Your task to perform on an android device: delete location history Image 0: 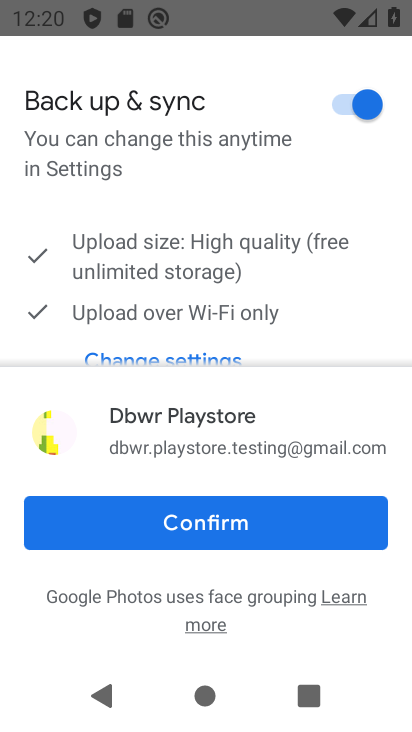
Step 0: press home button
Your task to perform on an android device: delete location history Image 1: 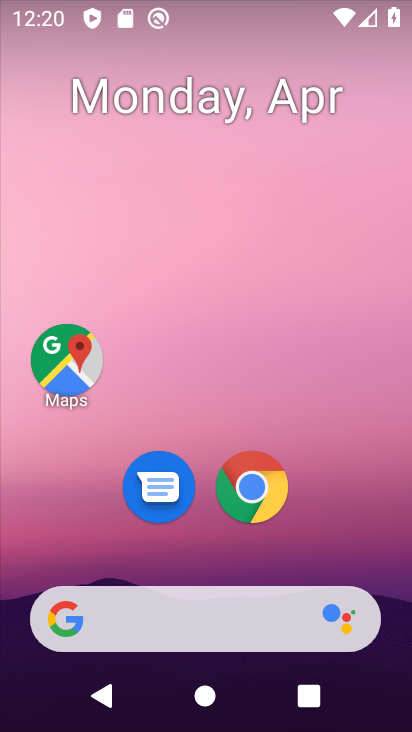
Step 1: drag from (395, 625) to (211, 27)
Your task to perform on an android device: delete location history Image 2: 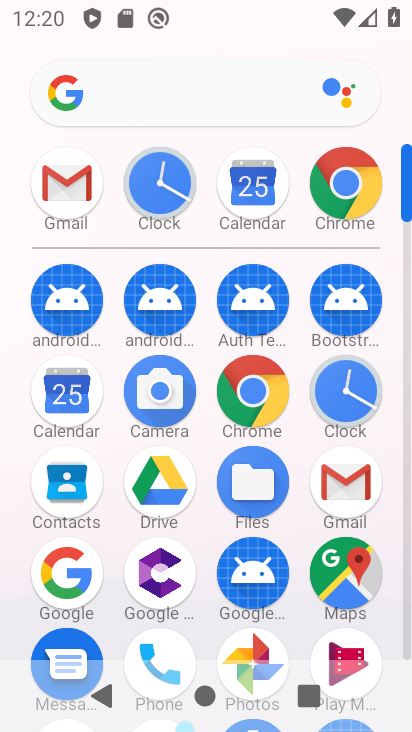
Step 2: click (405, 659)
Your task to perform on an android device: delete location history Image 3: 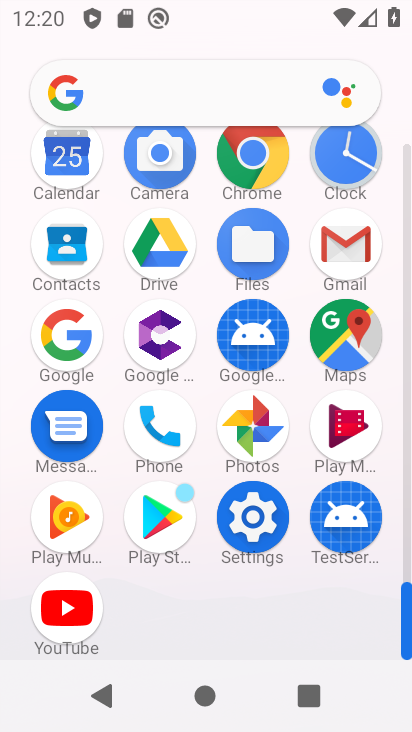
Step 3: click (269, 521)
Your task to perform on an android device: delete location history Image 4: 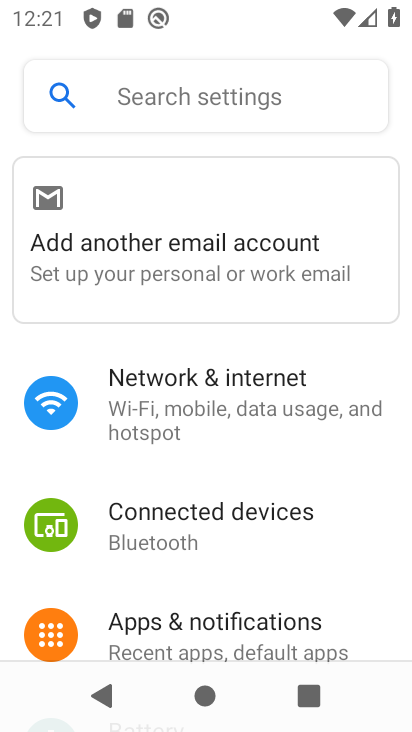
Step 4: drag from (164, 561) to (209, 145)
Your task to perform on an android device: delete location history Image 5: 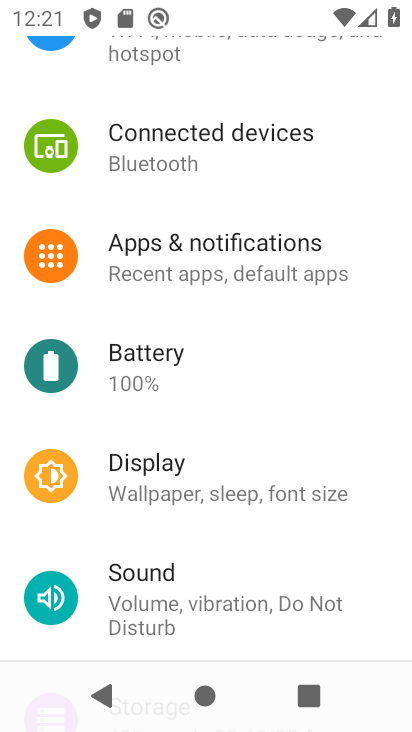
Step 5: drag from (173, 587) to (236, 208)
Your task to perform on an android device: delete location history Image 6: 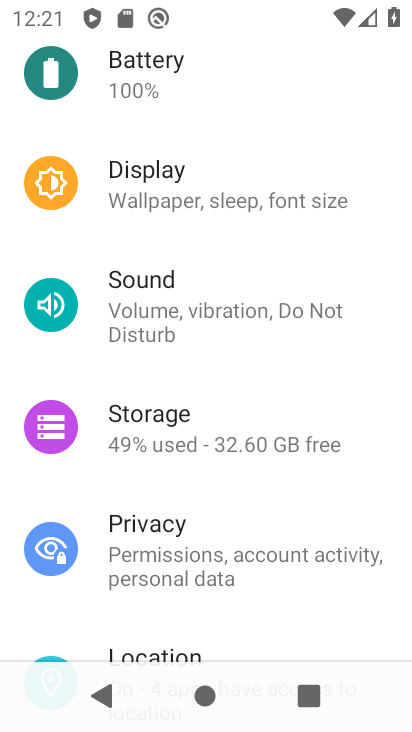
Step 6: drag from (167, 557) to (196, 148)
Your task to perform on an android device: delete location history Image 7: 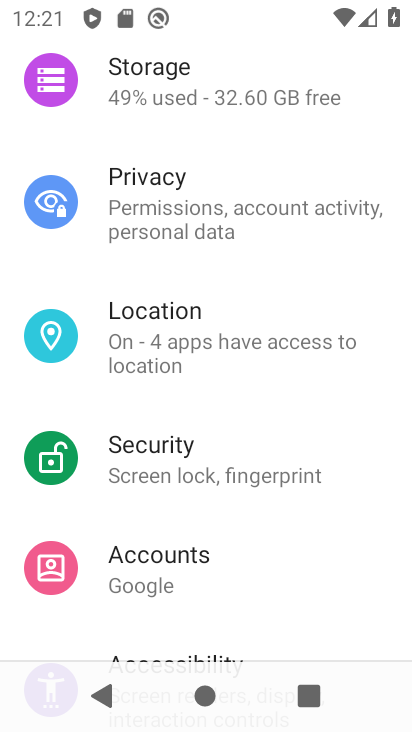
Step 7: click (141, 319)
Your task to perform on an android device: delete location history Image 8: 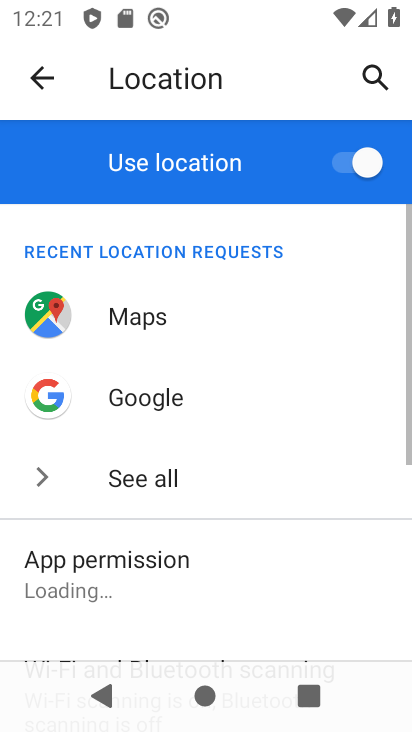
Step 8: drag from (66, 605) to (186, 152)
Your task to perform on an android device: delete location history Image 9: 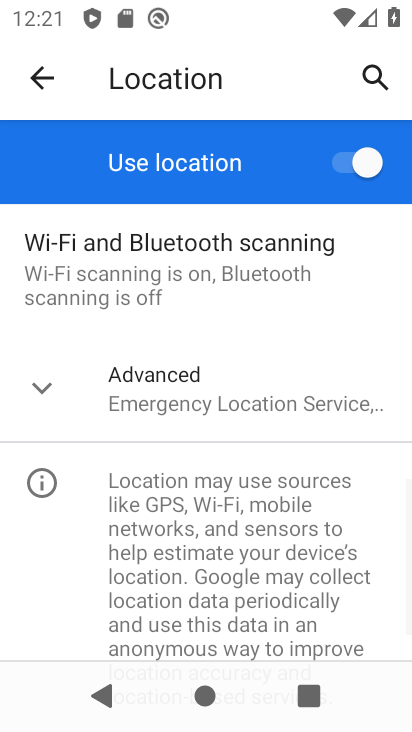
Step 9: click (11, 402)
Your task to perform on an android device: delete location history Image 10: 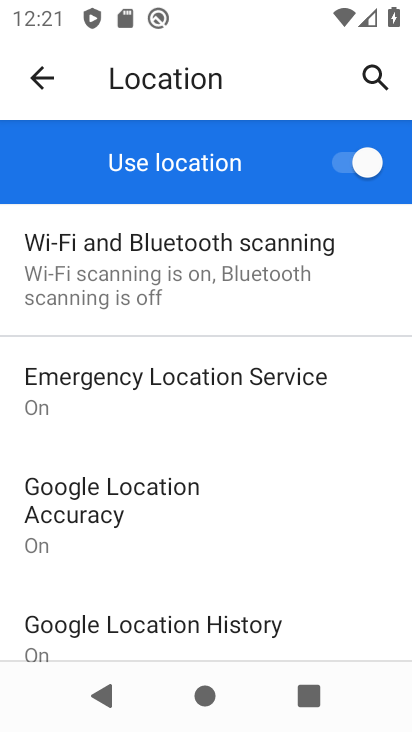
Step 10: click (251, 623)
Your task to perform on an android device: delete location history Image 11: 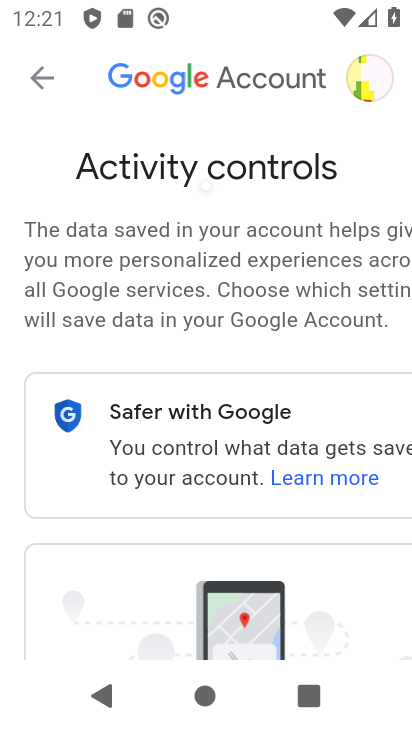
Step 11: drag from (341, 597) to (200, 75)
Your task to perform on an android device: delete location history Image 12: 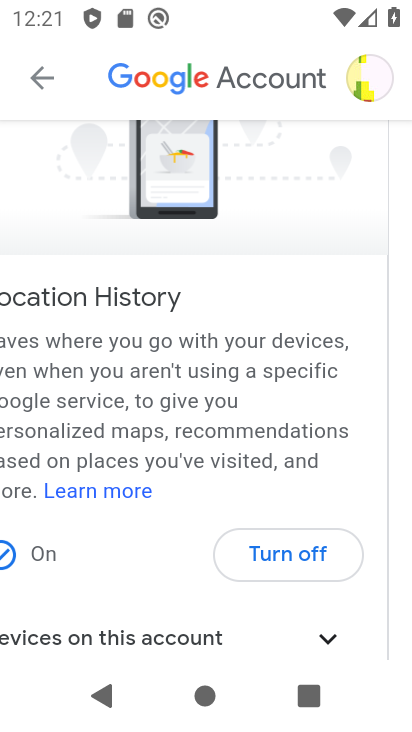
Step 12: drag from (260, 558) to (252, 240)
Your task to perform on an android device: delete location history Image 13: 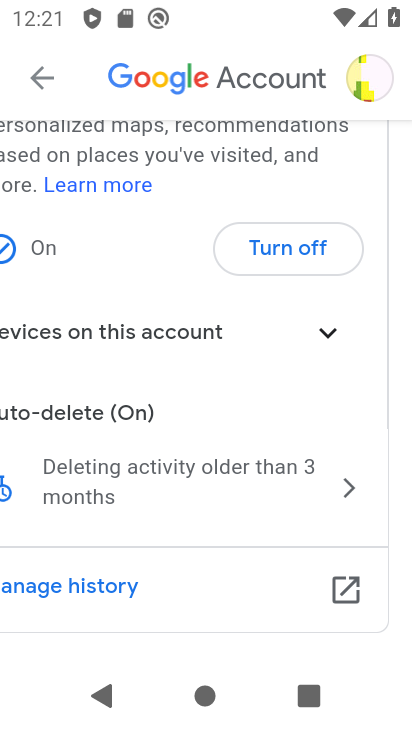
Step 13: click (160, 485)
Your task to perform on an android device: delete location history Image 14: 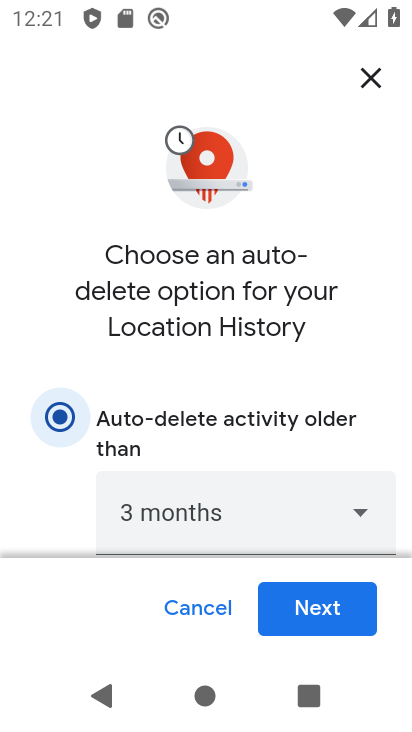
Step 14: click (315, 603)
Your task to perform on an android device: delete location history Image 15: 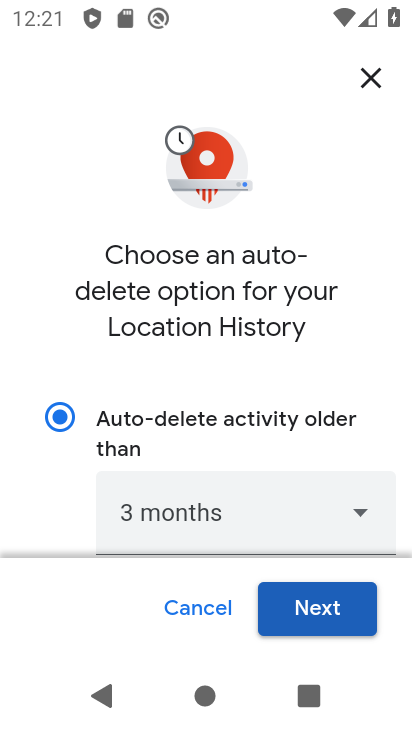
Step 15: click (299, 596)
Your task to perform on an android device: delete location history Image 16: 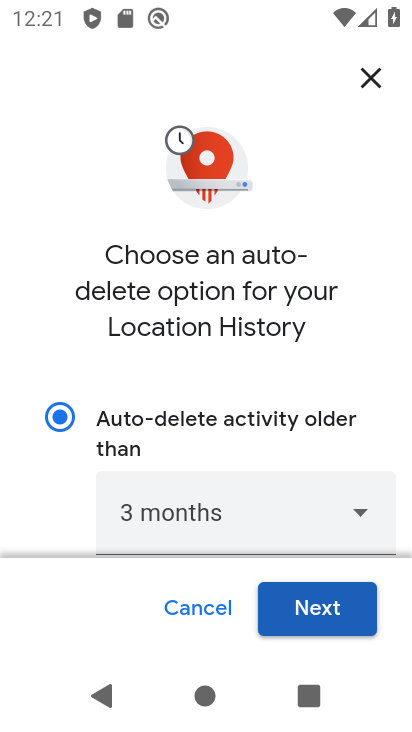
Step 16: click (309, 608)
Your task to perform on an android device: delete location history Image 17: 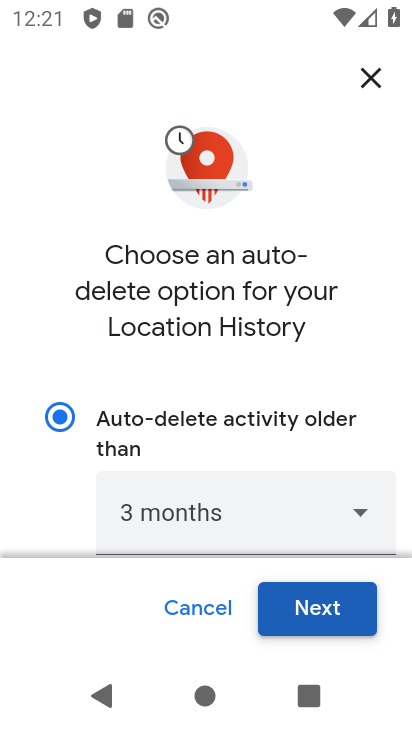
Step 17: click (310, 609)
Your task to perform on an android device: delete location history Image 18: 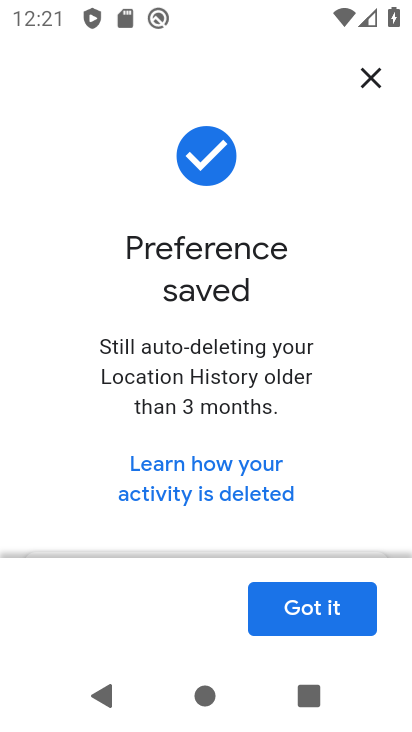
Step 18: click (310, 609)
Your task to perform on an android device: delete location history Image 19: 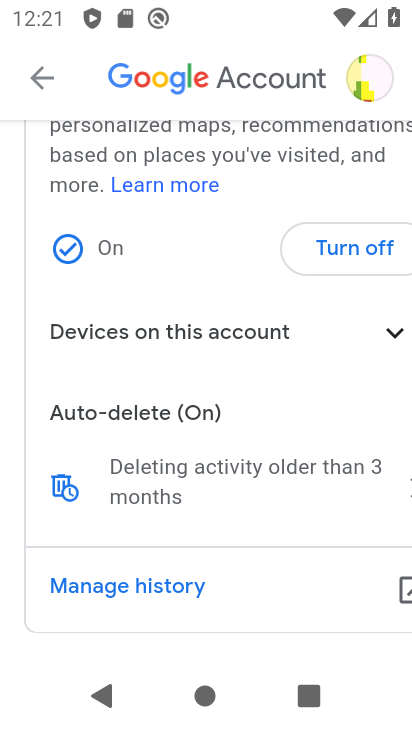
Step 19: task complete